Your task to perform on an android device: make emails show in primary in the gmail app Image 0: 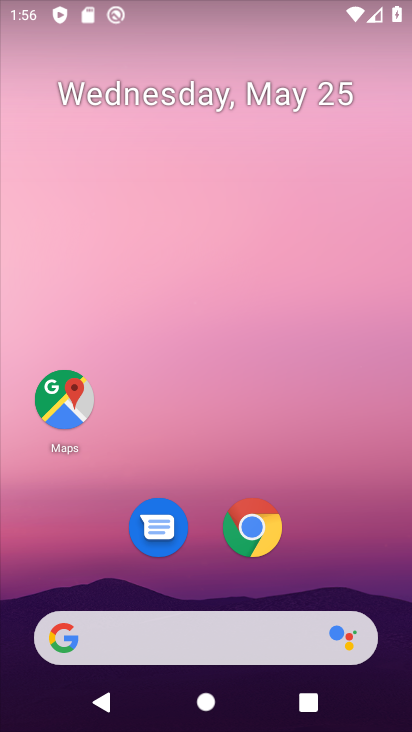
Step 0: drag from (263, 194) to (274, 157)
Your task to perform on an android device: make emails show in primary in the gmail app Image 1: 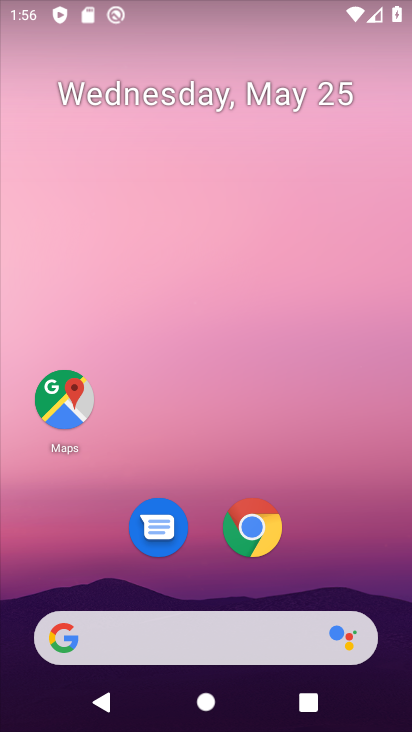
Step 1: drag from (198, 587) to (295, 171)
Your task to perform on an android device: make emails show in primary in the gmail app Image 2: 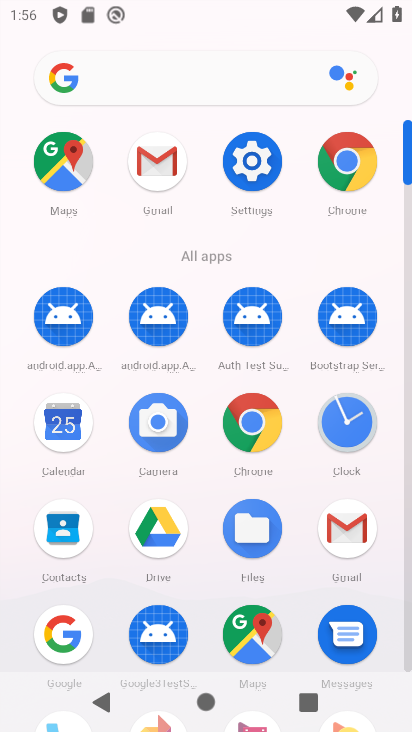
Step 2: click (342, 522)
Your task to perform on an android device: make emails show in primary in the gmail app Image 3: 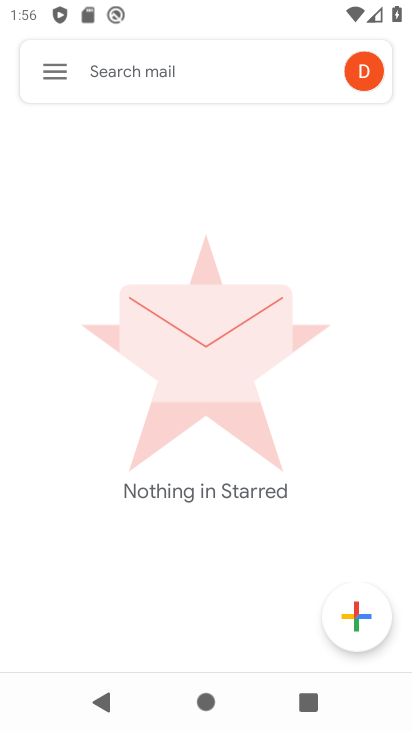
Step 3: click (43, 78)
Your task to perform on an android device: make emails show in primary in the gmail app Image 4: 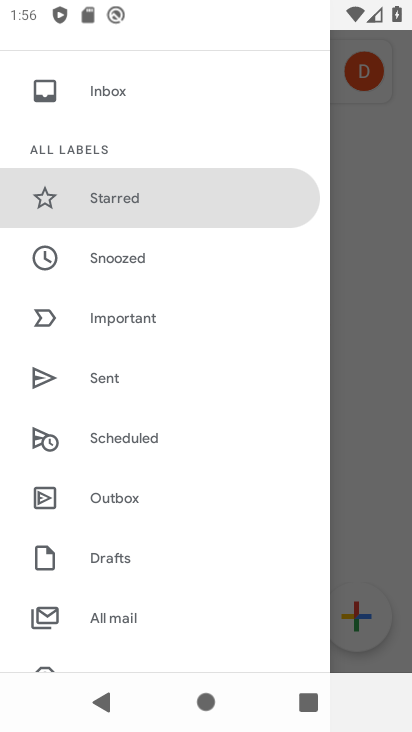
Step 4: drag from (125, 84) to (268, 594)
Your task to perform on an android device: make emails show in primary in the gmail app Image 5: 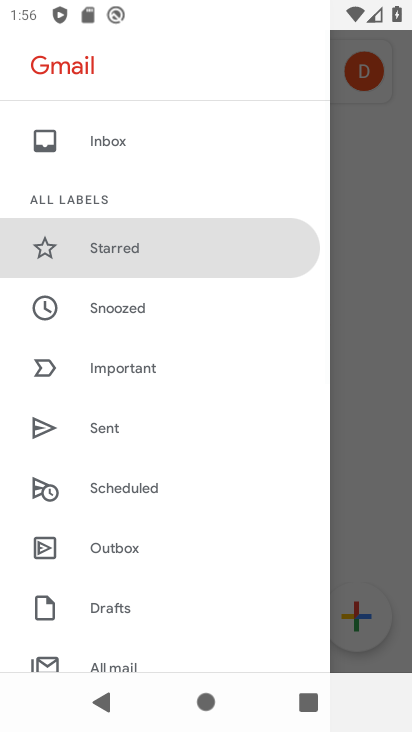
Step 5: click (88, 152)
Your task to perform on an android device: make emails show in primary in the gmail app Image 6: 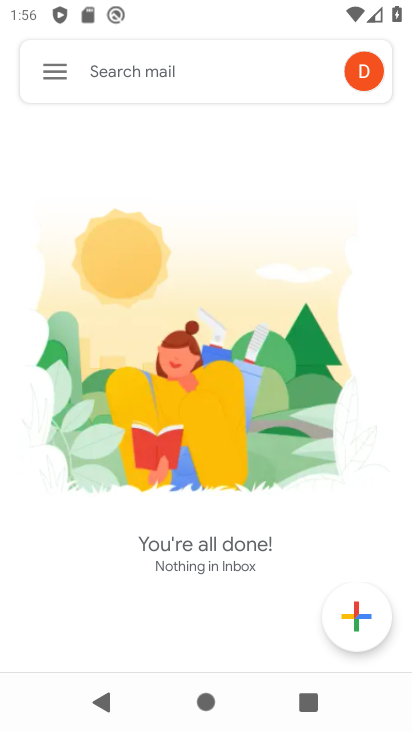
Step 6: task complete